Your task to perform on an android device: Go to Google maps Image 0: 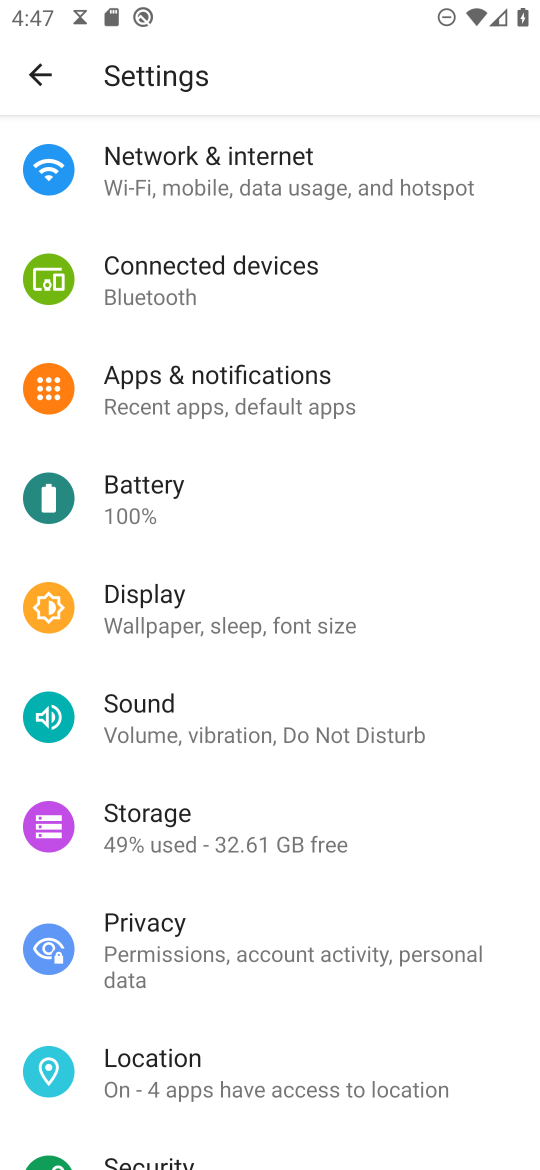
Step 0: press home button
Your task to perform on an android device: Go to Google maps Image 1: 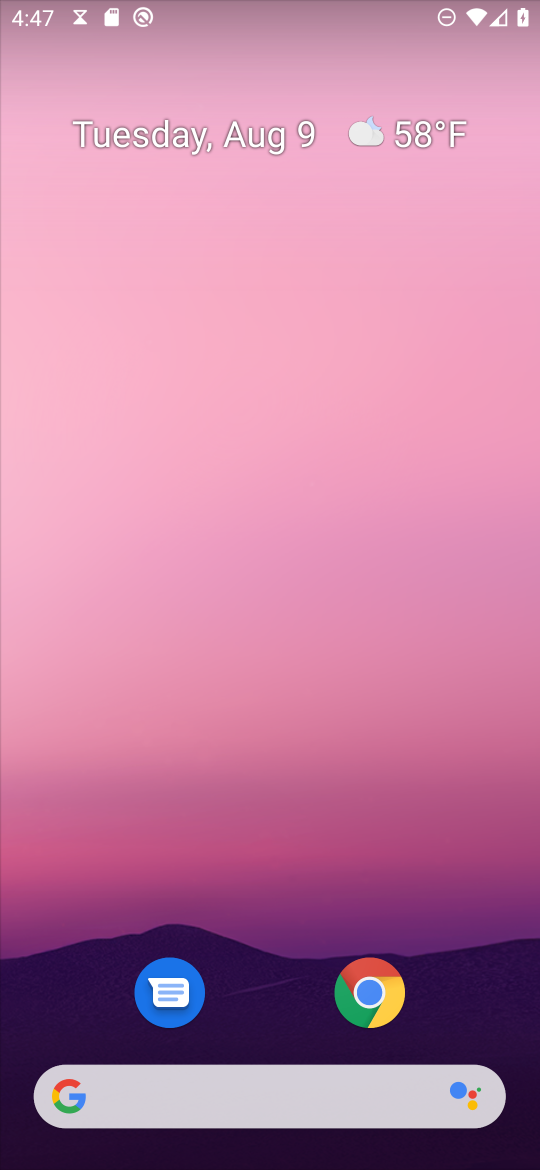
Step 1: drag from (246, 1068) to (162, 79)
Your task to perform on an android device: Go to Google maps Image 2: 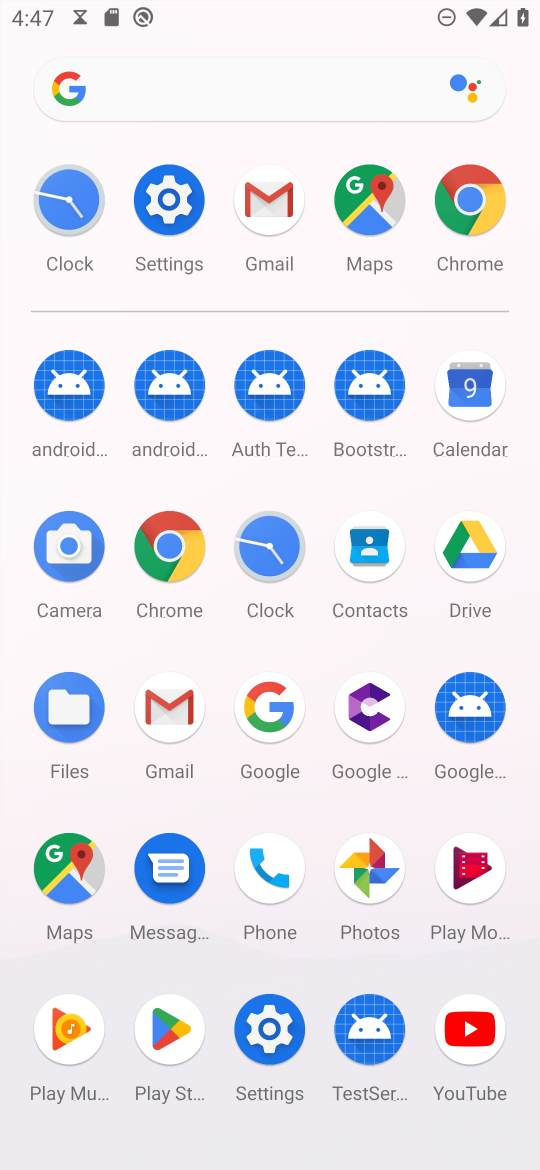
Step 2: click (61, 866)
Your task to perform on an android device: Go to Google maps Image 3: 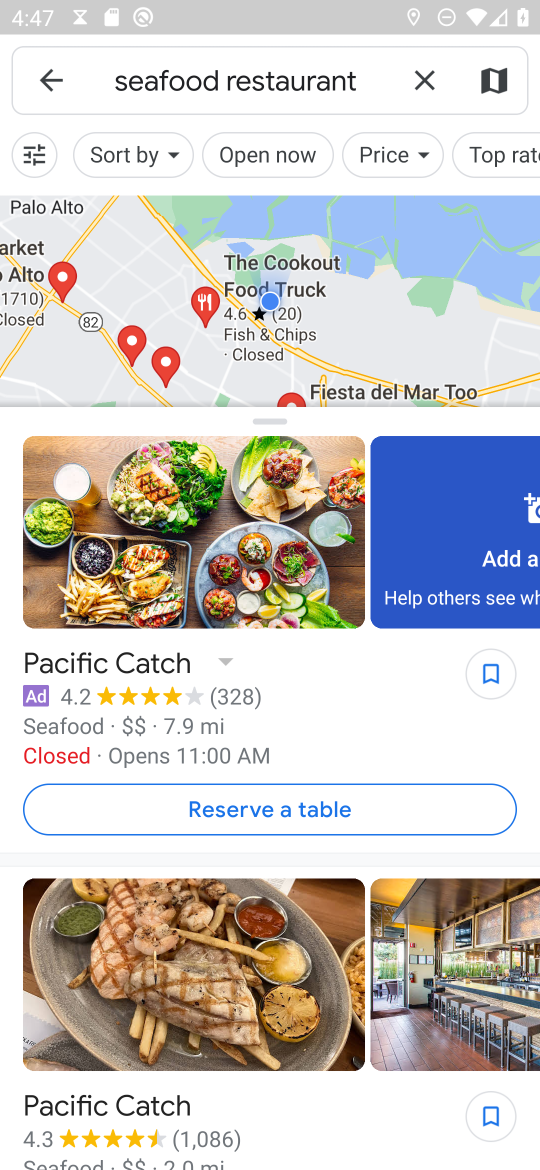
Step 3: task complete